Your task to perform on an android device: Open the calendar and show me this week's events Image 0: 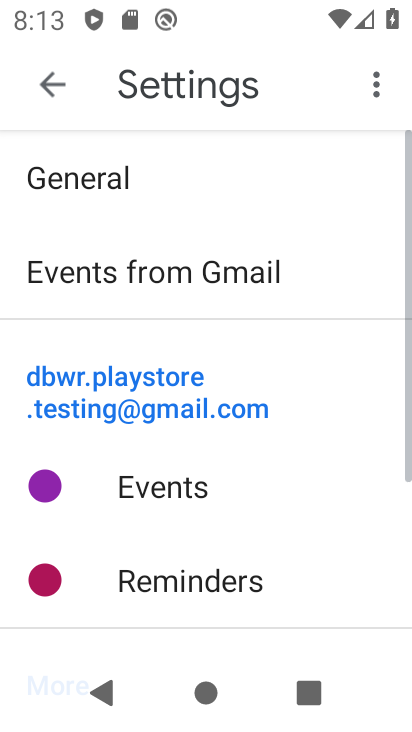
Step 0: click (180, 188)
Your task to perform on an android device: Open the calendar and show me this week's events Image 1: 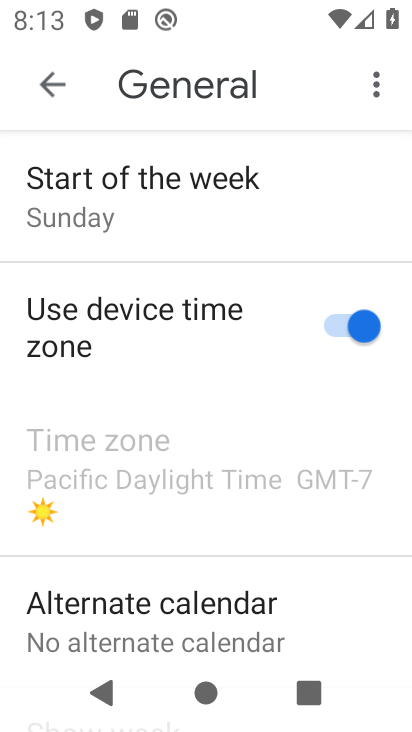
Step 1: press home button
Your task to perform on an android device: Open the calendar and show me this week's events Image 2: 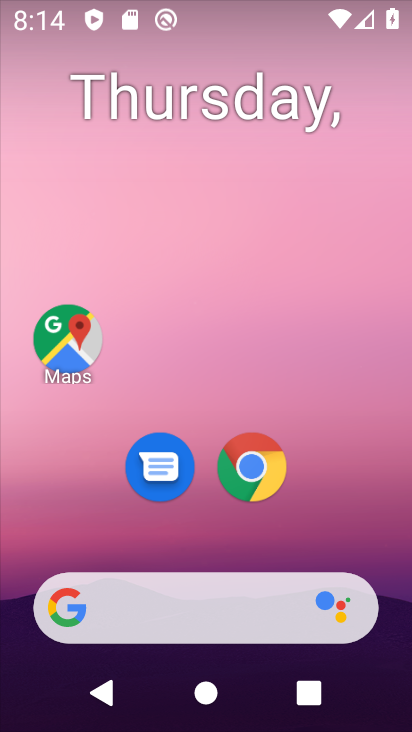
Step 2: drag from (191, 559) to (406, 340)
Your task to perform on an android device: Open the calendar and show me this week's events Image 3: 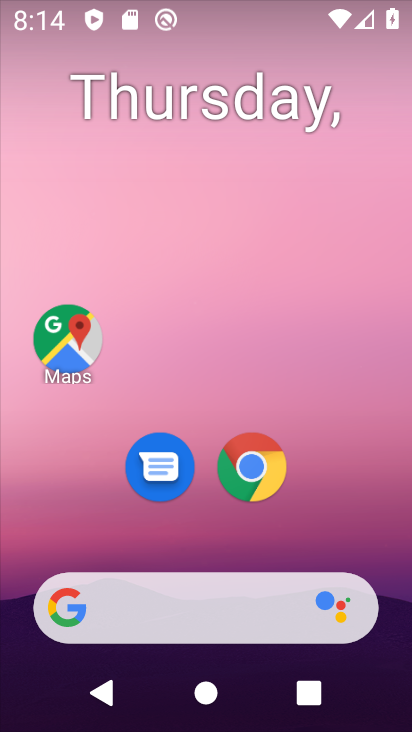
Step 3: drag from (209, 546) to (230, 0)
Your task to perform on an android device: Open the calendar and show me this week's events Image 4: 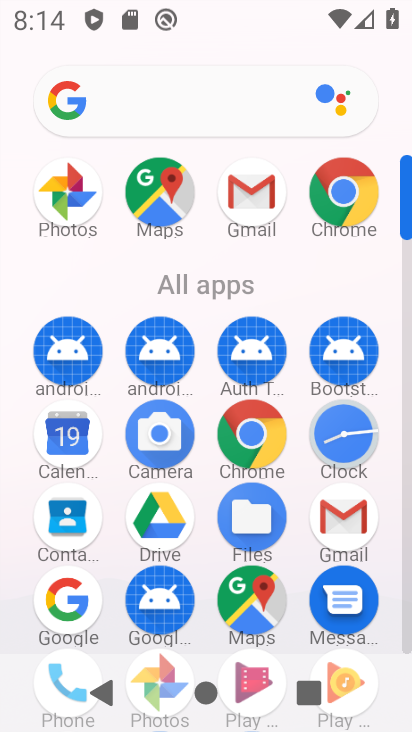
Step 4: click (48, 429)
Your task to perform on an android device: Open the calendar and show me this week's events Image 5: 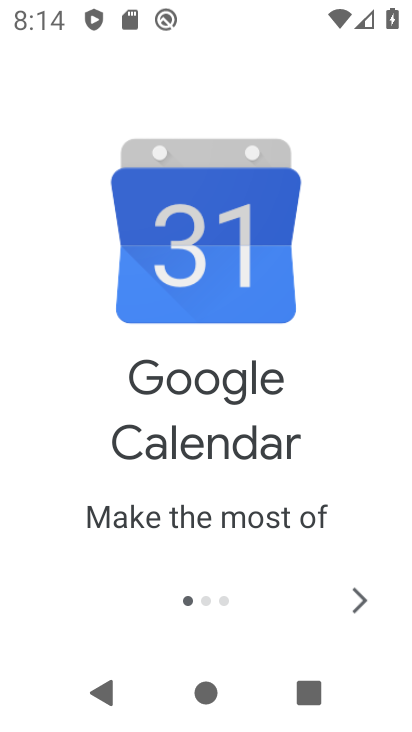
Step 5: click (356, 601)
Your task to perform on an android device: Open the calendar and show me this week's events Image 6: 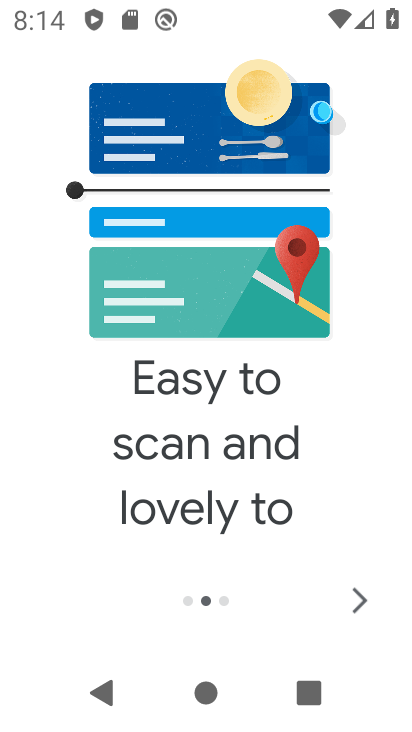
Step 6: click (356, 601)
Your task to perform on an android device: Open the calendar and show me this week's events Image 7: 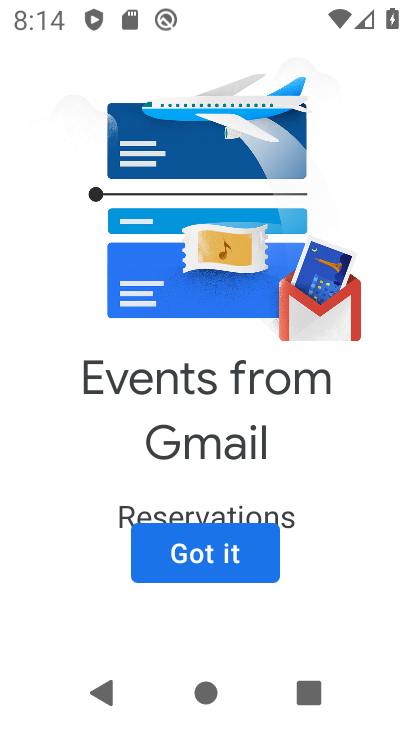
Step 7: click (187, 569)
Your task to perform on an android device: Open the calendar and show me this week's events Image 8: 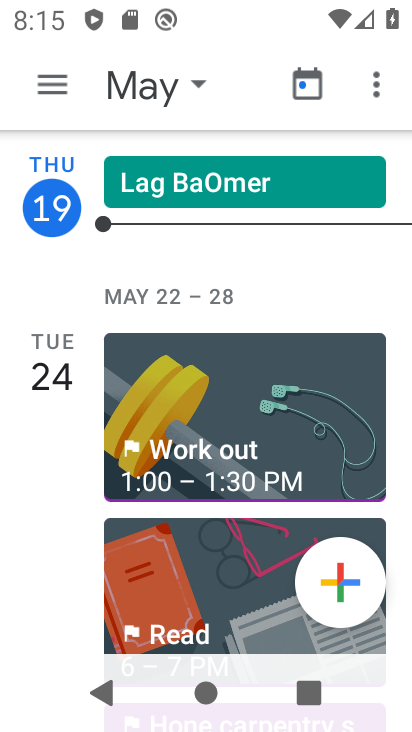
Step 8: click (51, 93)
Your task to perform on an android device: Open the calendar and show me this week's events Image 9: 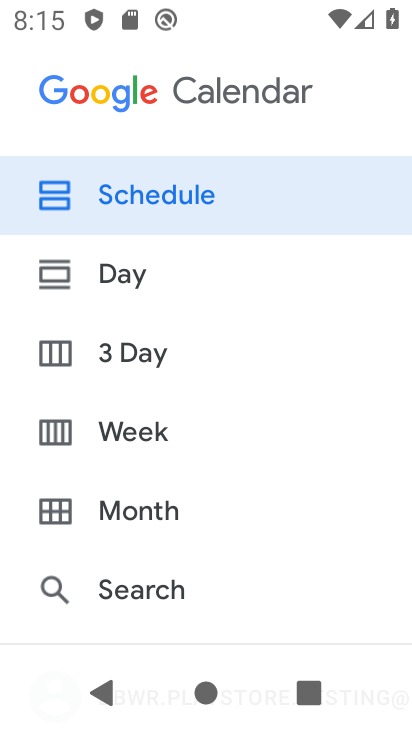
Step 9: press back button
Your task to perform on an android device: Open the calendar and show me this week's events Image 10: 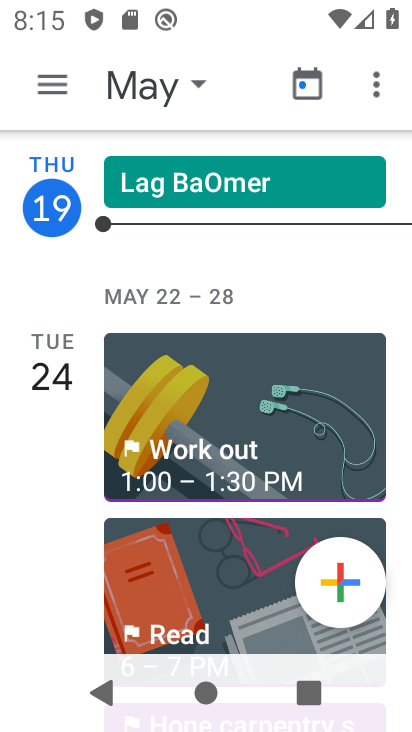
Step 10: click (135, 86)
Your task to perform on an android device: Open the calendar and show me this week's events Image 11: 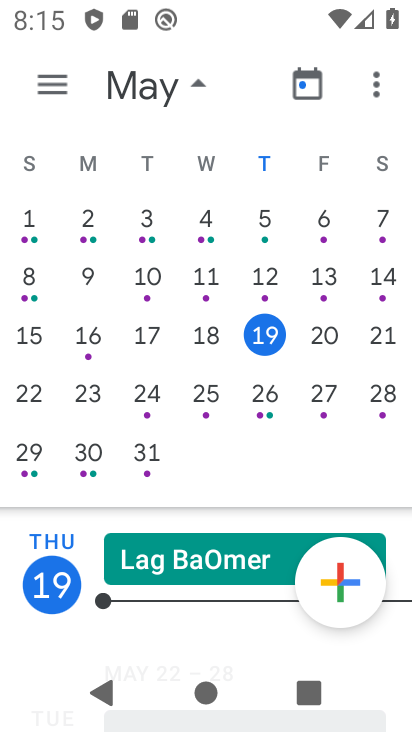
Step 11: click (37, 341)
Your task to perform on an android device: Open the calendar and show me this week's events Image 12: 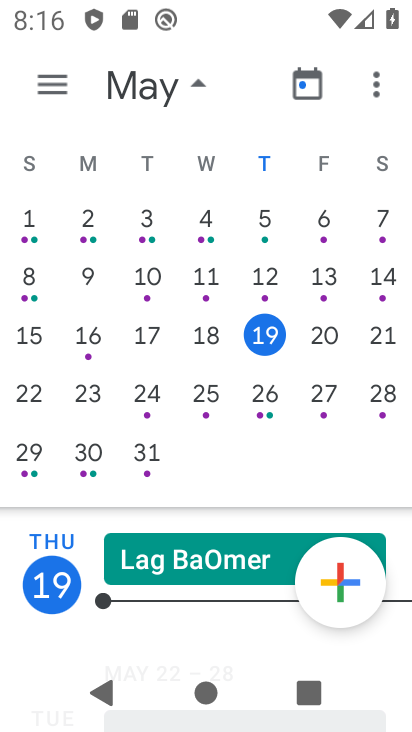
Step 12: click (28, 339)
Your task to perform on an android device: Open the calendar and show me this week's events Image 13: 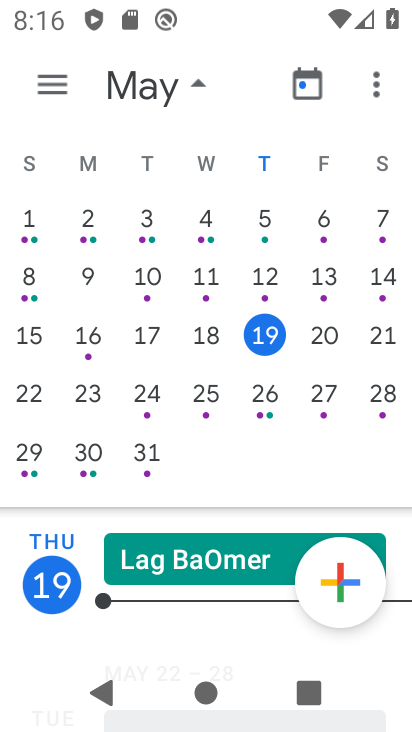
Step 13: click (28, 339)
Your task to perform on an android device: Open the calendar and show me this week's events Image 14: 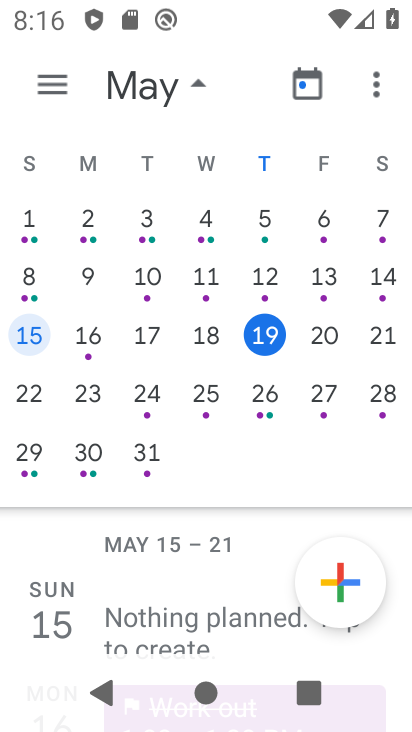
Step 14: click (47, 88)
Your task to perform on an android device: Open the calendar and show me this week's events Image 15: 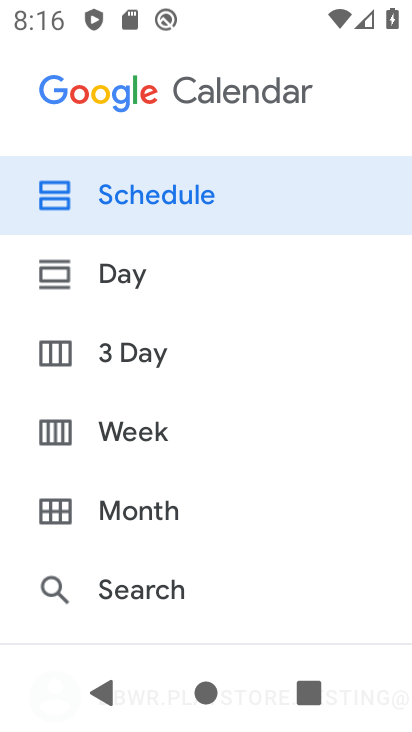
Step 15: click (136, 437)
Your task to perform on an android device: Open the calendar and show me this week's events Image 16: 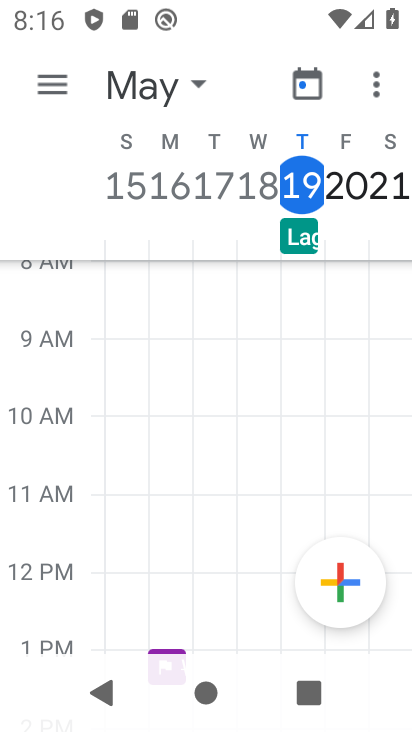
Step 16: click (120, 92)
Your task to perform on an android device: Open the calendar and show me this week's events Image 17: 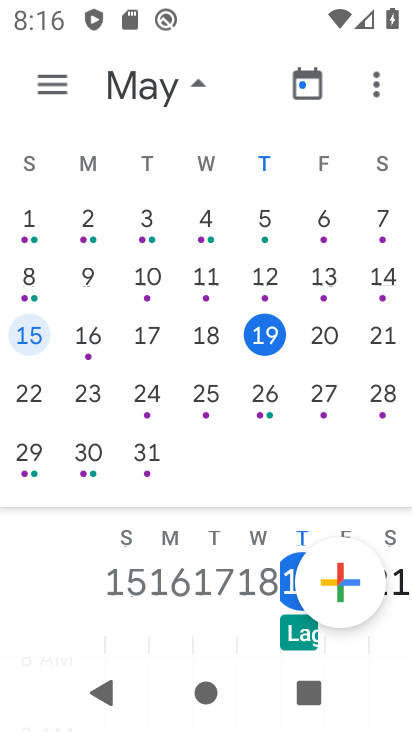
Step 17: click (31, 398)
Your task to perform on an android device: Open the calendar and show me this week's events Image 18: 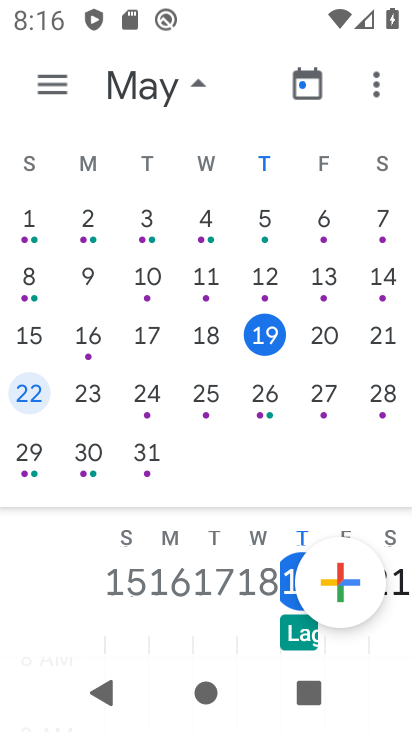
Step 18: click (31, 398)
Your task to perform on an android device: Open the calendar and show me this week's events Image 19: 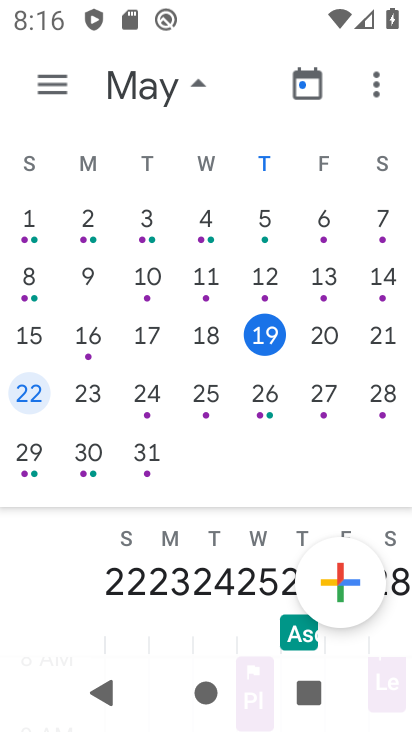
Step 19: click (22, 328)
Your task to perform on an android device: Open the calendar and show me this week's events Image 20: 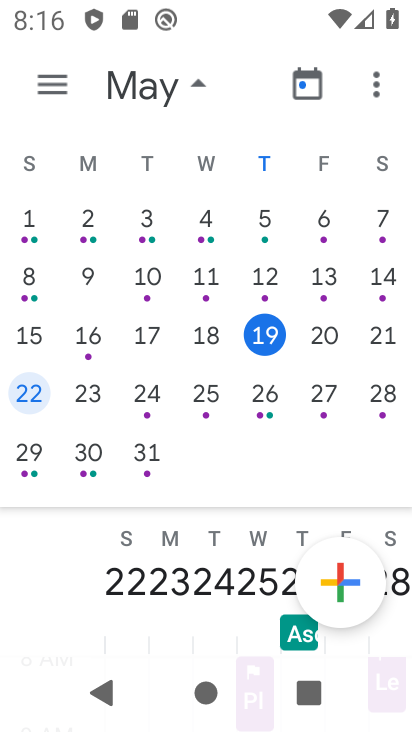
Step 20: click (33, 336)
Your task to perform on an android device: Open the calendar and show me this week's events Image 21: 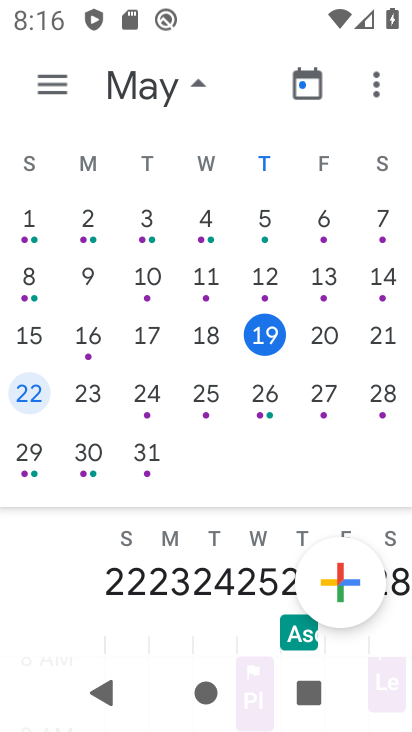
Step 21: click (38, 341)
Your task to perform on an android device: Open the calendar and show me this week's events Image 22: 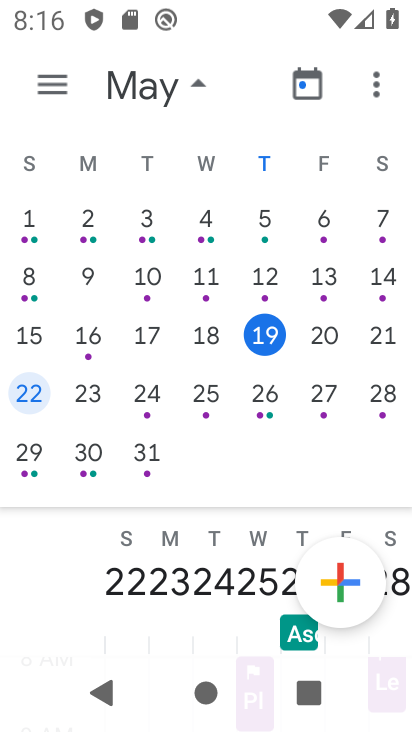
Step 22: click (43, 337)
Your task to perform on an android device: Open the calendar and show me this week's events Image 23: 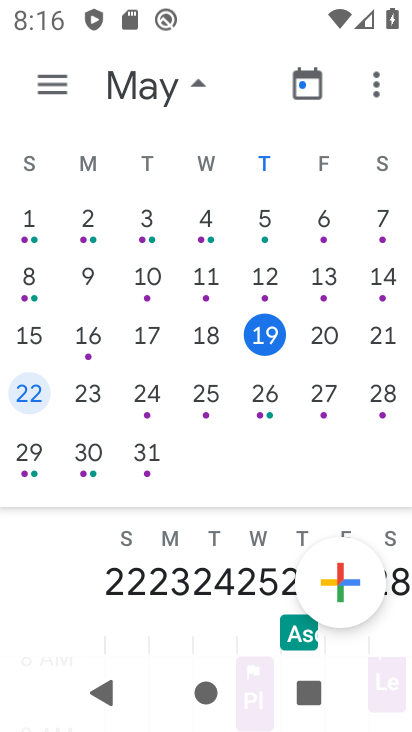
Step 23: click (36, 332)
Your task to perform on an android device: Open the calendar and show me this week's events Image 24: 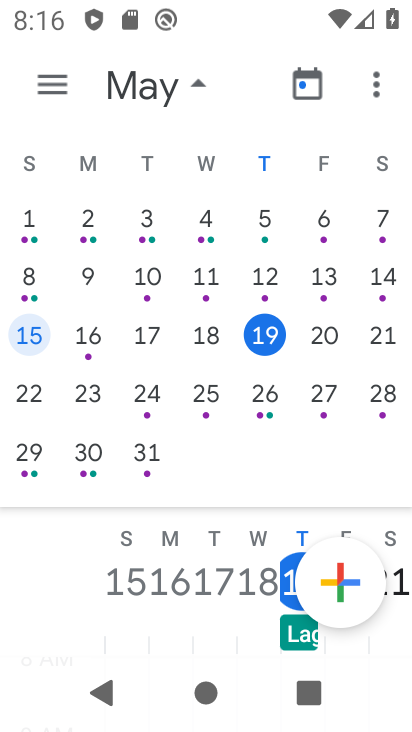
Step 24: click (36, 332)
Your task to perform on an android device: Open the calendar and show me this week's events Image 25: 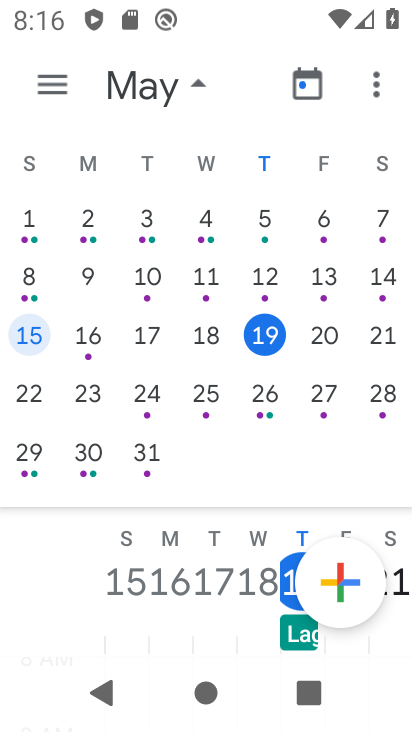
Step 25: task complete